Your task to perform on an android device: toggle priority inbox in the gmail app Image 0: 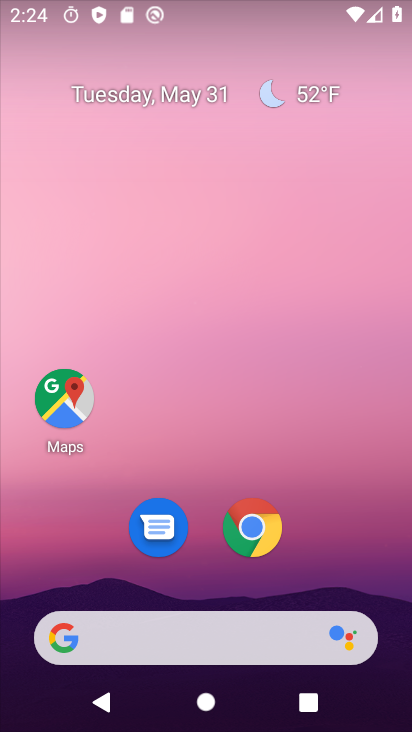
Step 0: drag from (92, 589) to (137, 166)
Your task to perform on an android device: toggle priority inbox in the gmail app Image 1: 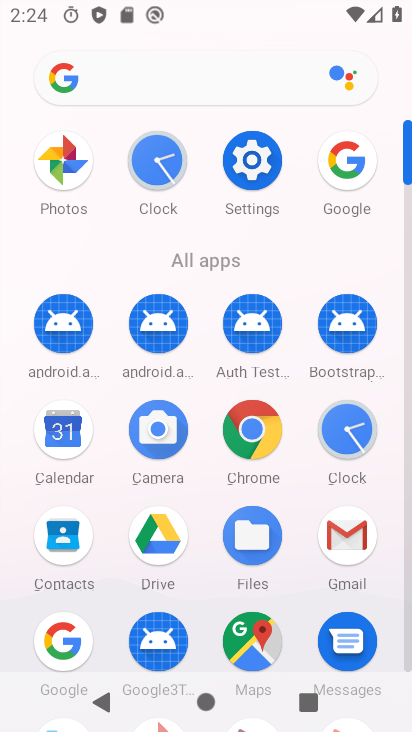
Step 1: click (337, 541)
Your task to perform on an android device: toggle priority inbox in the gmail app Image 2: 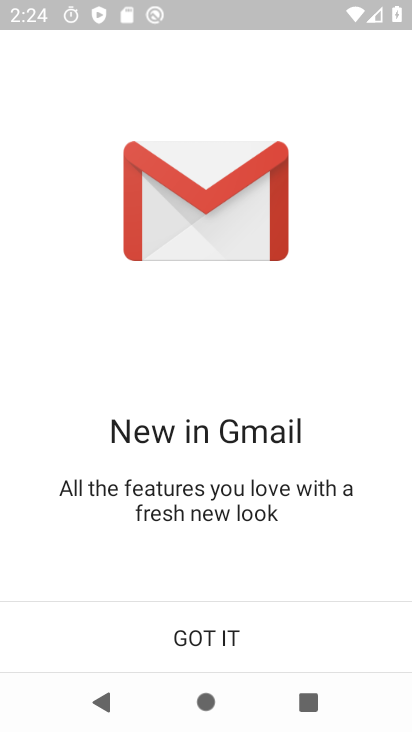
Step 2: click (276, 622)
Your task to perform on an android device: toggle priority inbox in the gmail app Image 3: 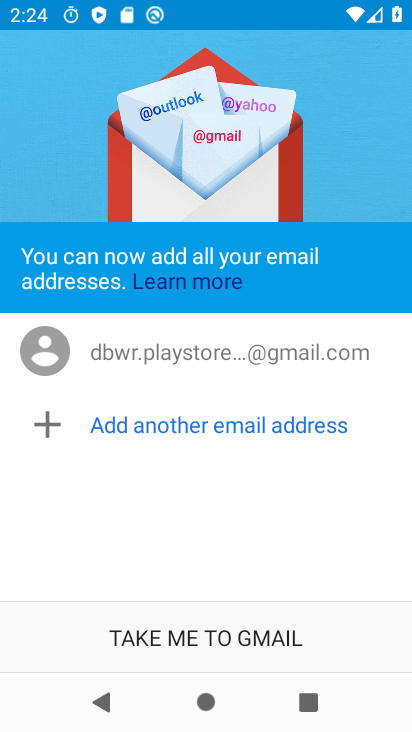
Step 3: click (277, 623)
Your task to perform on an android device: toggle priority inbox in the gmail app Image 4: 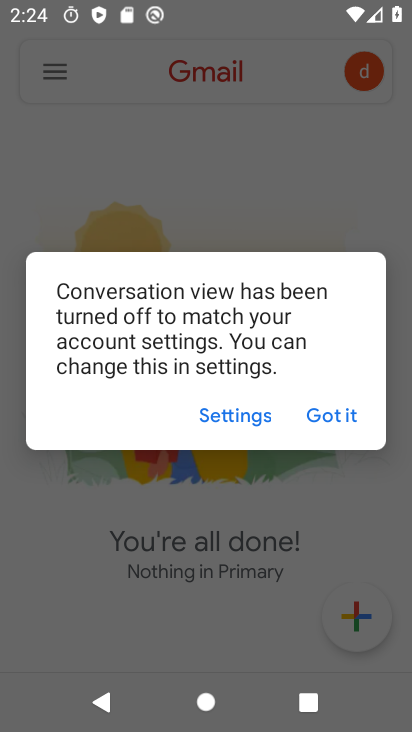
Step 4: click (328, 410)
Your task to perform on an android device: toggle priority inbox in the gmail app Image 5: 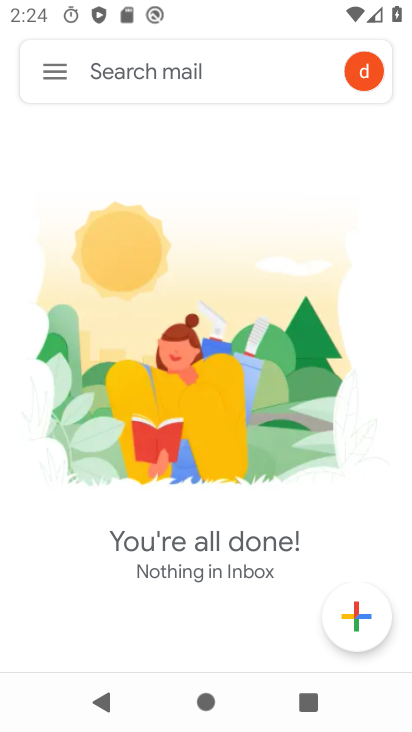
Step 5: click (55, 70)
Your task to perform on an android device: toggle priority inbox in the gmail app Image 6: 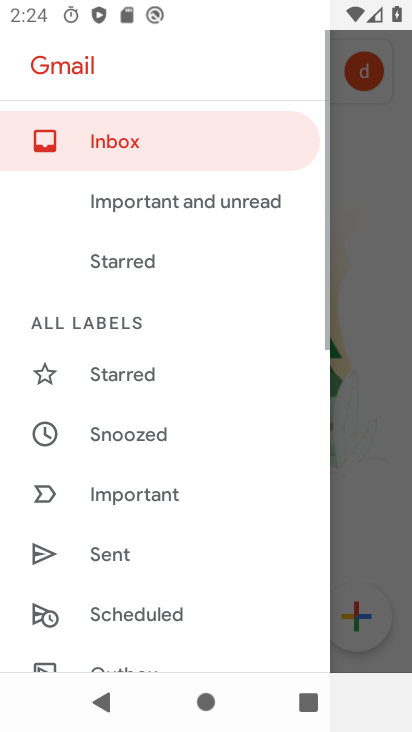
Step 6: drag from (178, 572) to (222, 144)
Your task to perform on an android device: toggle priority inbox in the gmail app Image 7: 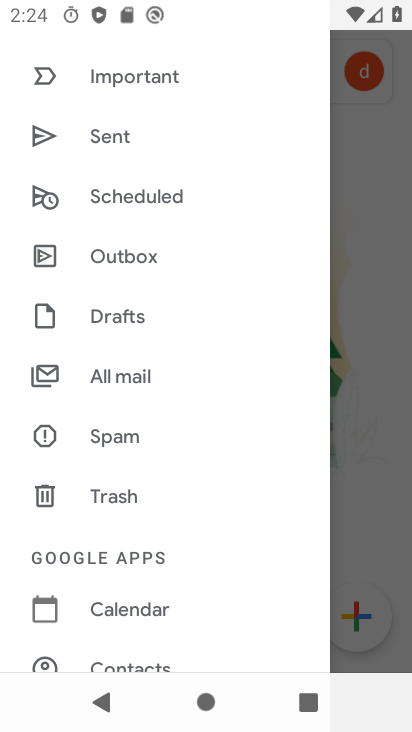
Step 7: drag from (174, 621) to (225, 303)
Your task to perform on an android device: toggle priority inbox in the gmail app Image 8: 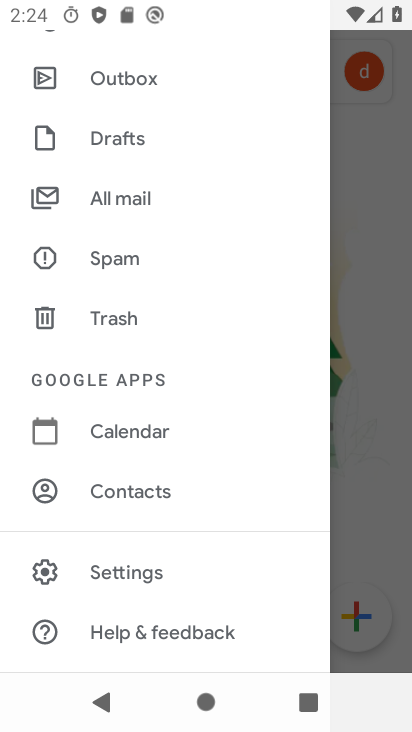
Step 8: click (204, 581)
Your task to perform on an android device: toggle priority inbox in the gmail app Image 9: 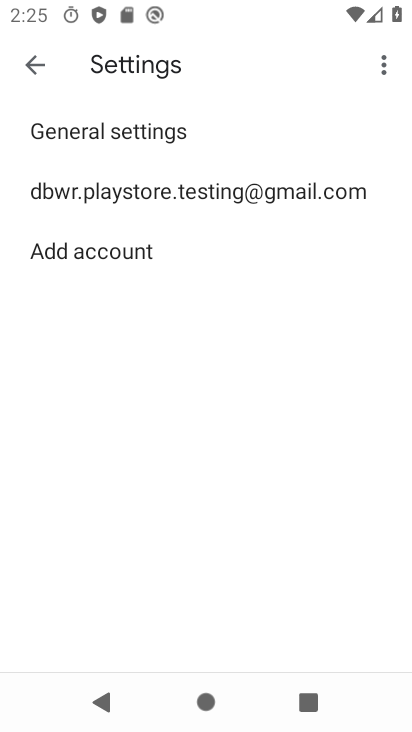
Step 9: click (280, 202)
Your task to perform on an android device: toggle priority inbox in the gmail app Image 10: 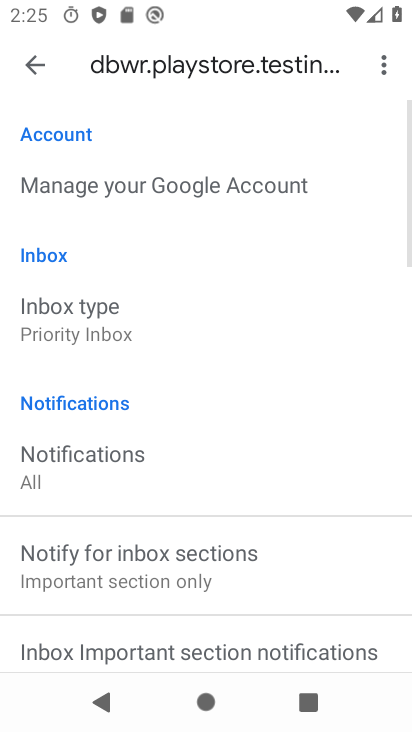
Step 10: click (167, 317)
Your task to perform on an android device: toggle priority inbox in the gmail app Image 11: 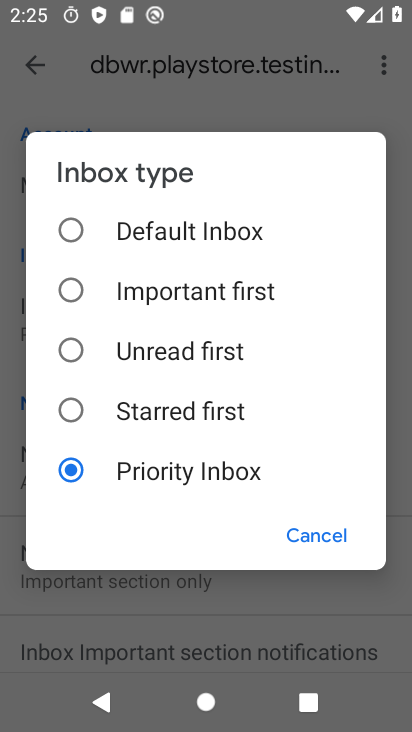
Step 11: click (166, 227)
Your task to perform on an android device: toggle priority inbox in the gmail app Image 12: 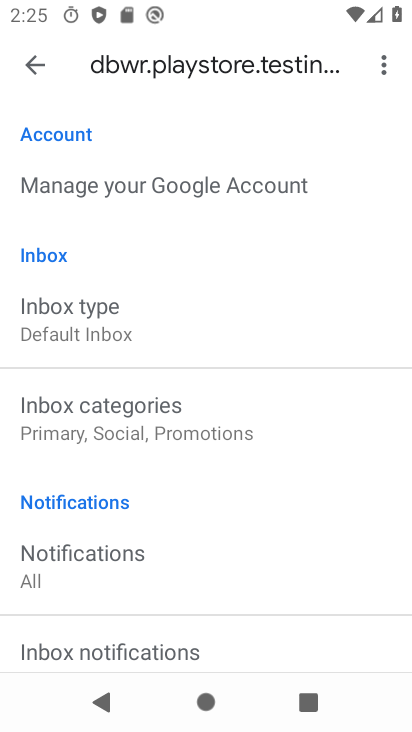
Step 12: task complete